Your task to perform on an android device: Open Google Image 0: 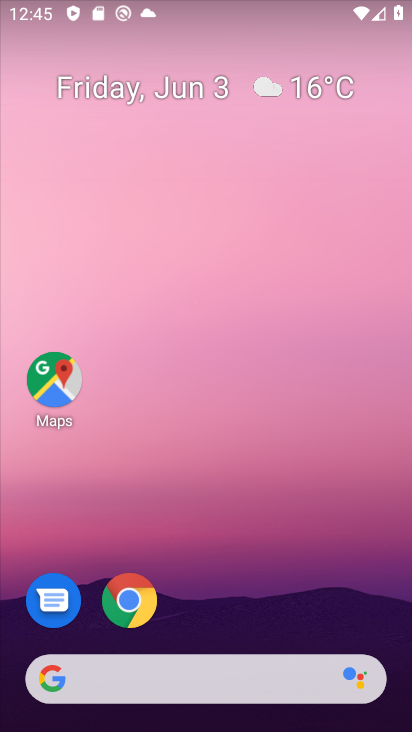
Step 0: click (191, 153)
Your task to perform on an android device: Open Google Image 1: 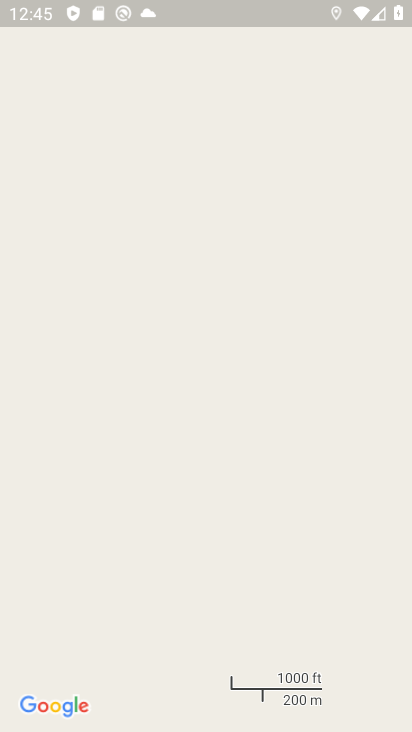
Step 1: press back button
Your task to perform on an android device: Open Google Image 2: 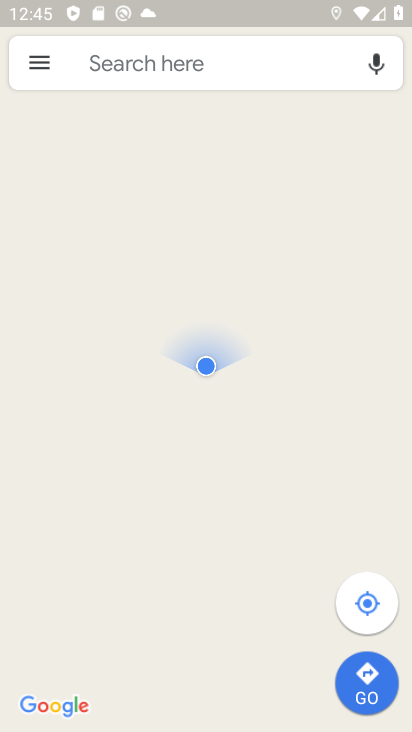
Step 2: press back button
Your task to perform on an android device: Open Google Image 3: 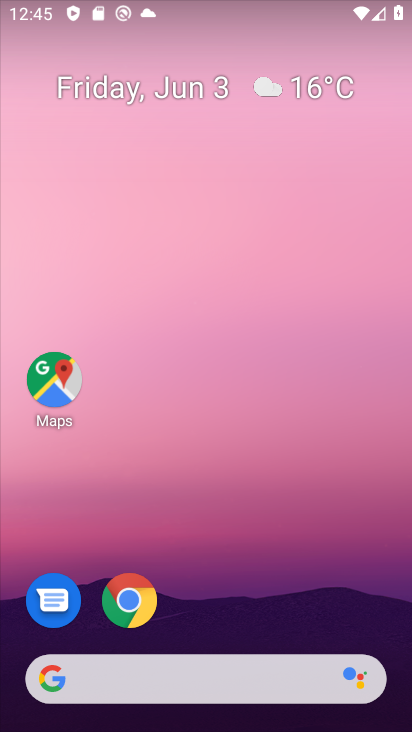
Step 3: click (120, 668)
Your task to perform on an android device: Open Google Image 4: 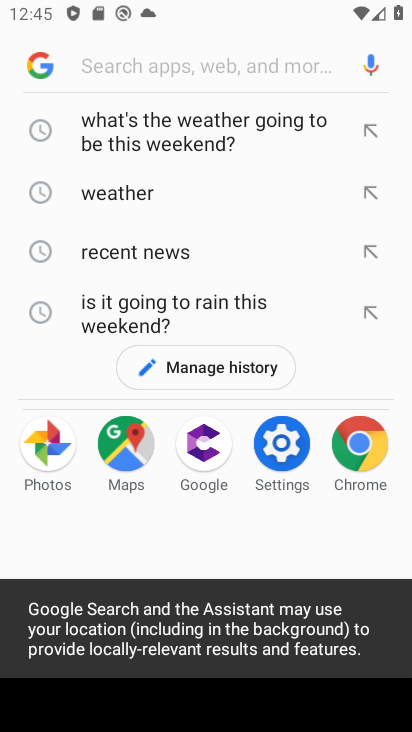
Step 4: task complete